Your task to perform on an android device: Go to Wikipedia Image 0: 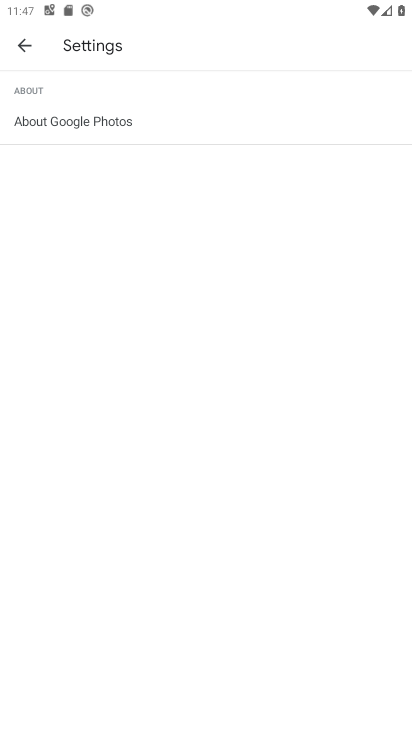
Step 0: press home button
Your task to perform on an android device: Go to Wikipedia Image 1: 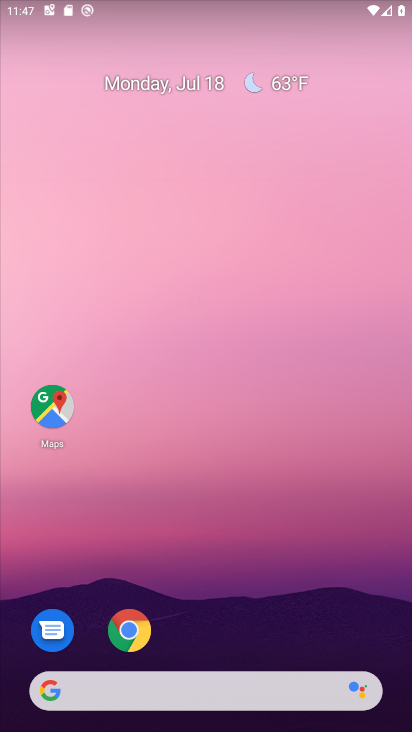
Step 1: click (132, 629)
Your task to perform on an android device: Go to Wikipedia Image 2: 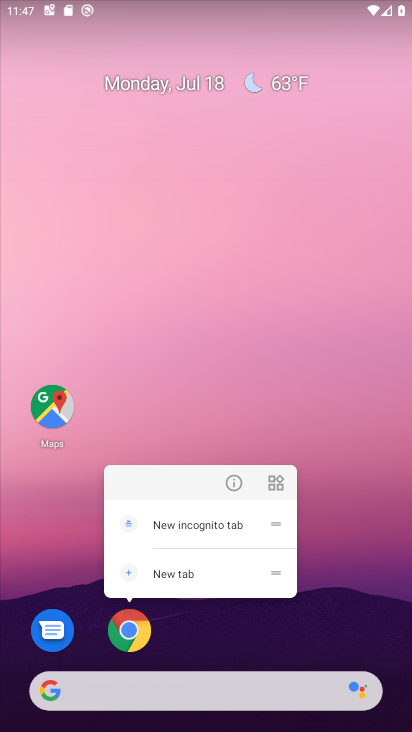
Step 2: click (132, 629)
Your task to perform on an android device: Go to Wikipedia Image 3: 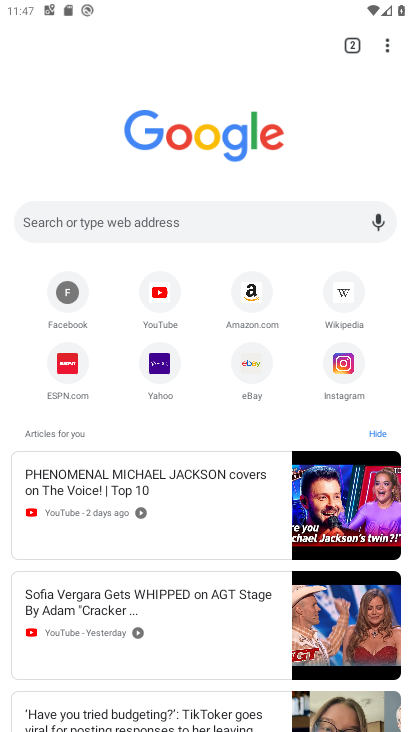
Step 3: click (340, 290)
Your task to perform on an android device: Go to Wikipedia Image 4: 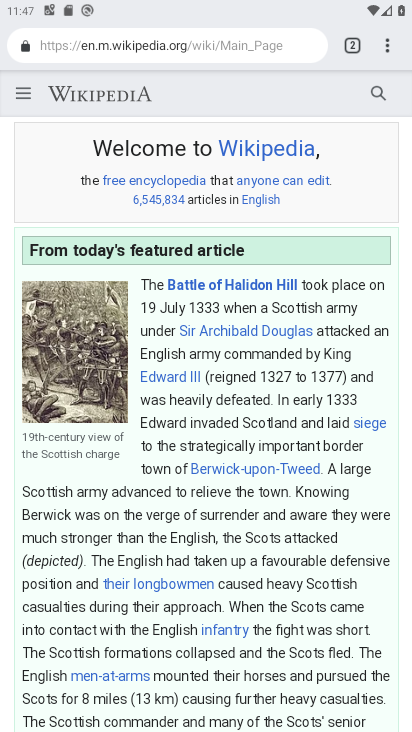
Step 4: task complete